Your task to perform on an android device: Go to Google maps Image 0: 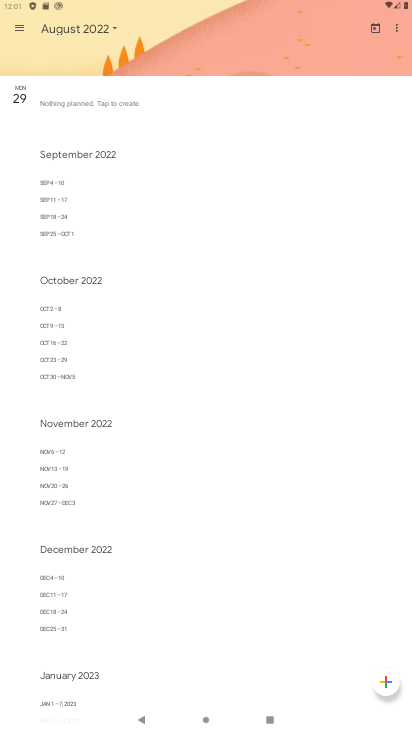
Step 0: press home button
Your task to perform on an android device: Go to Google maps Image 1: 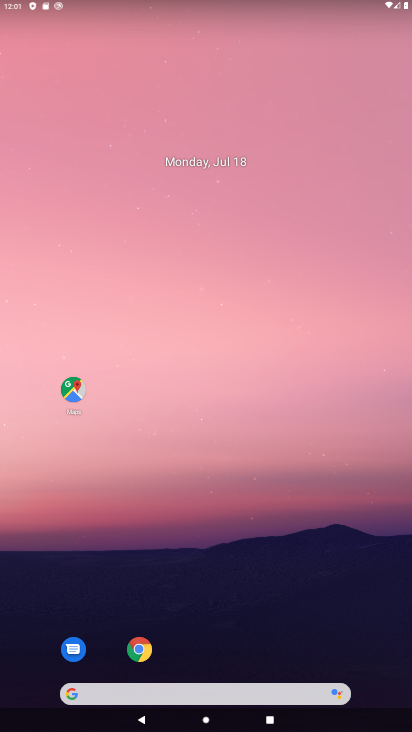
Step 1: click (82, 387)
Your task to perform on an android device: Go to Google maps Image 2: 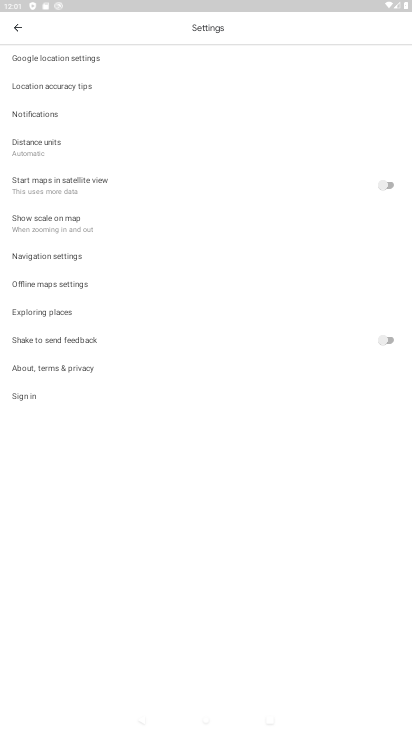
Step 2: click (10, 30)
Your task to perform on an android device: Go to Google maps Image 3: 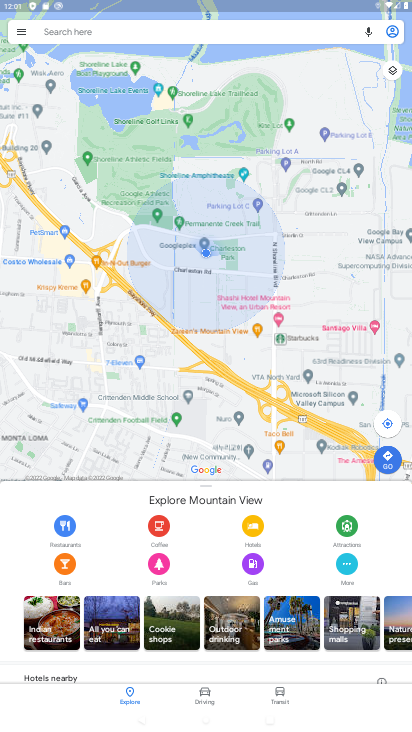
Step 3: click (67, 29)
Your task to perform on an android device: Go to Google maps Image 4: 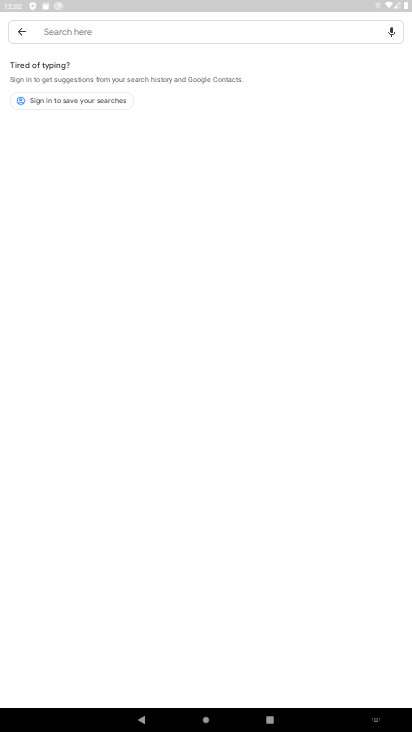
Step 4: task complete